Your task to perform on an android device: find which apps use the phone's location Image 0: 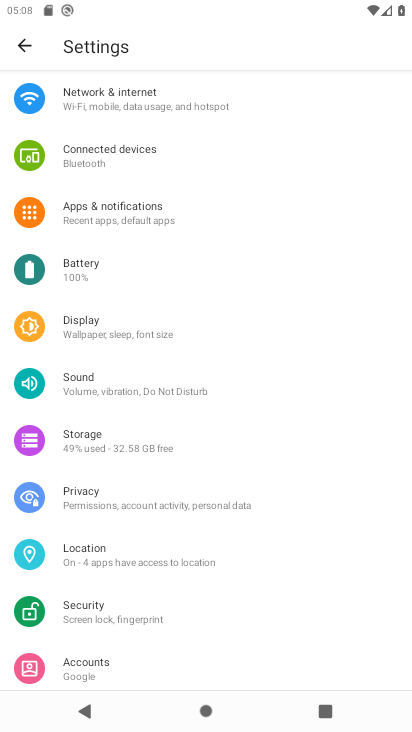
Step 0: press home button
Your task to perform on an android device: find which apps use the phone's location Image 1: 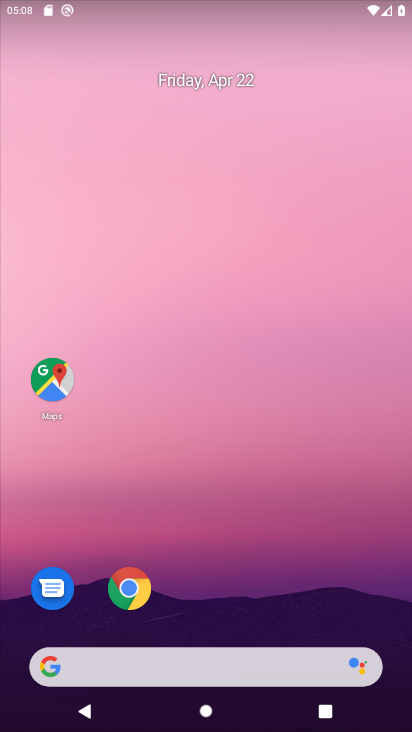
Step 1: drag from (286, 556) to (297, 56)
Your task to perform on an android device: find which apps use the phone's location Image 2: 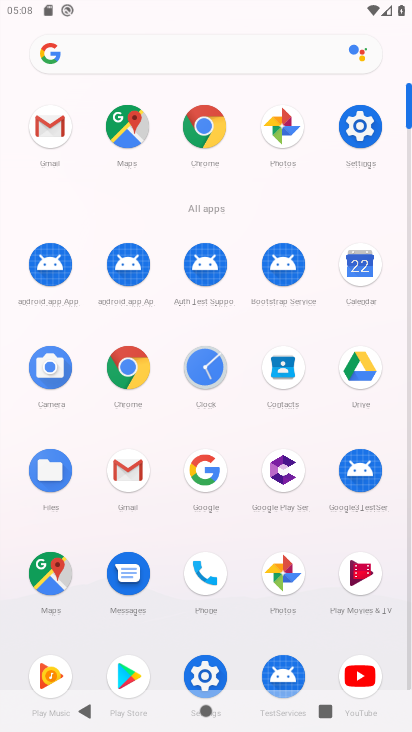
Step 2: click (363, 125)
Your task to perform on an android device: find which apps use the phone's location Image 3: 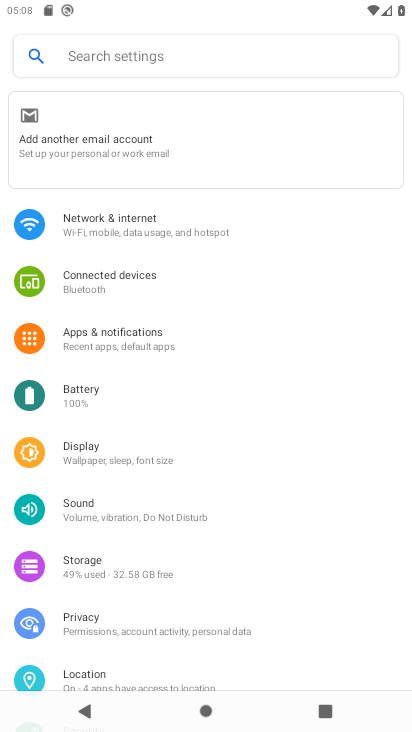
Step 3: click (125, 332)
Your task to perform on an android device: find which apps use the phone's location Image 4: 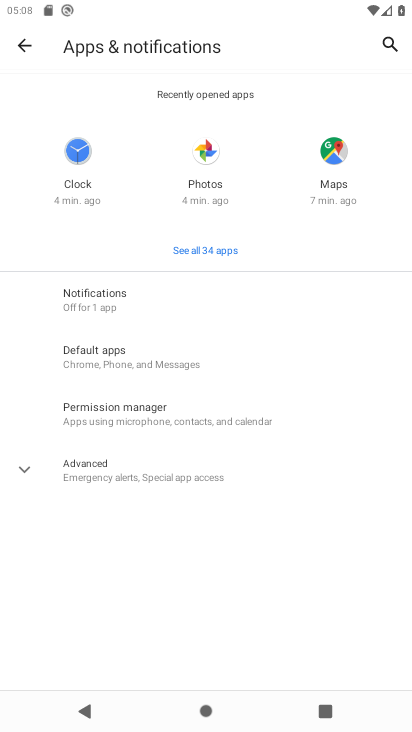
Step 4: click (24, 46)
Your task to perform on an android device: find which apps use the phone's location Image 5: 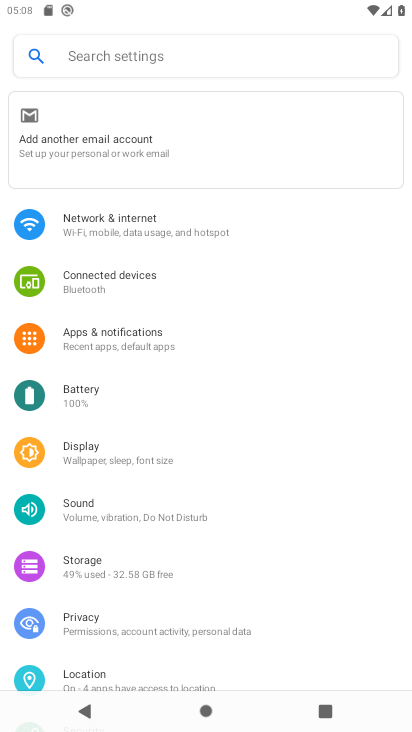
Step 5: click (142, 671)
Your task to perform on an android device: find which apps use the phone's location Image 6: 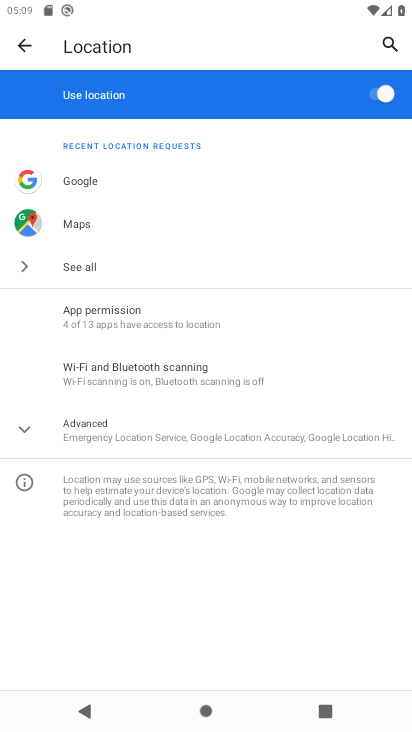
Step 6: click (140, 319)
Your task to perform on an android device: find which apps use the phone's location Image 7: 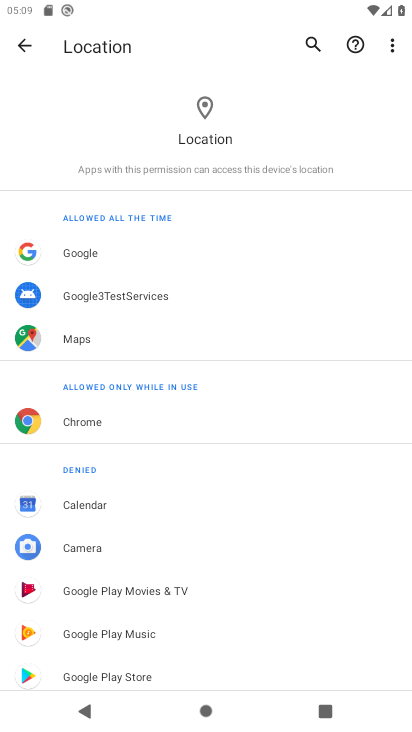
Step 7: task complete